Your task to perform on an android device: Open the downloads Image 0: 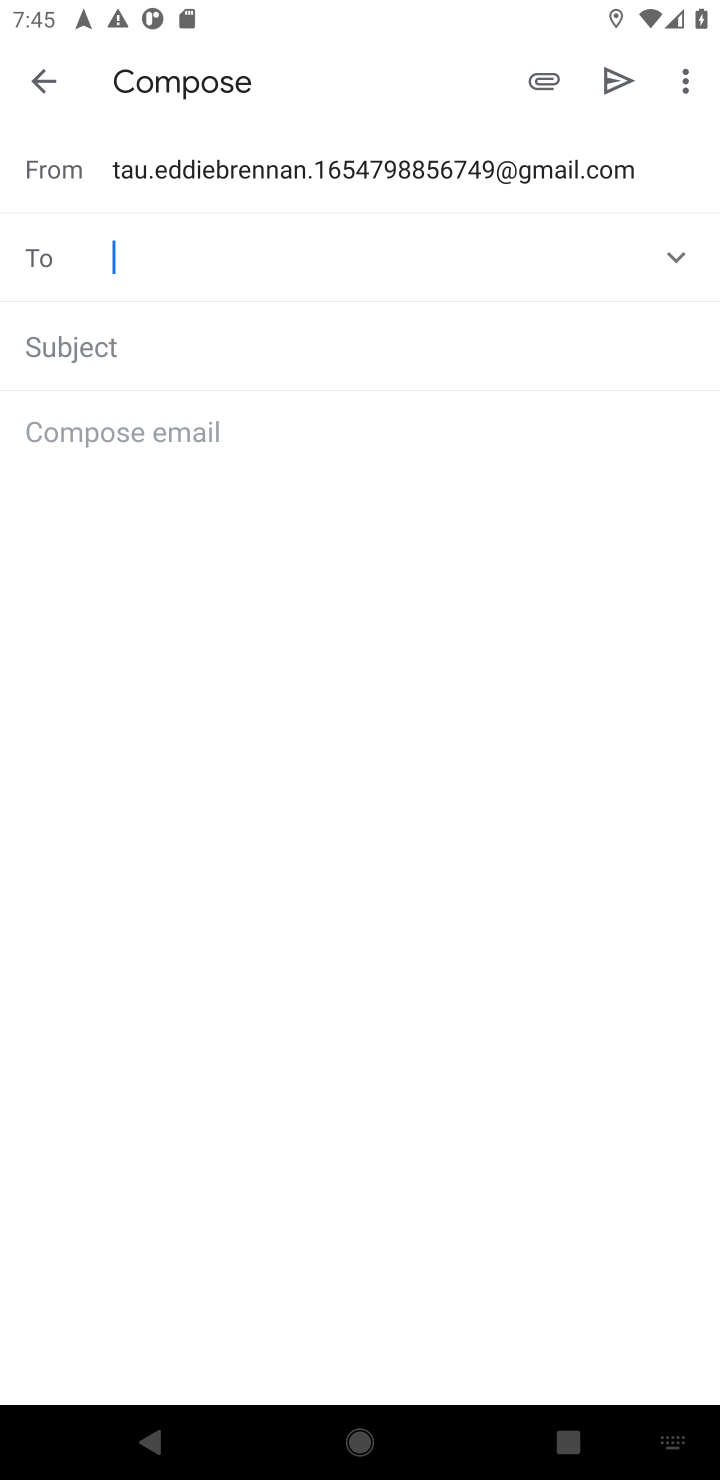
Step 0: press home button
Your task to perform on an android device: Open the downloads Image 1: 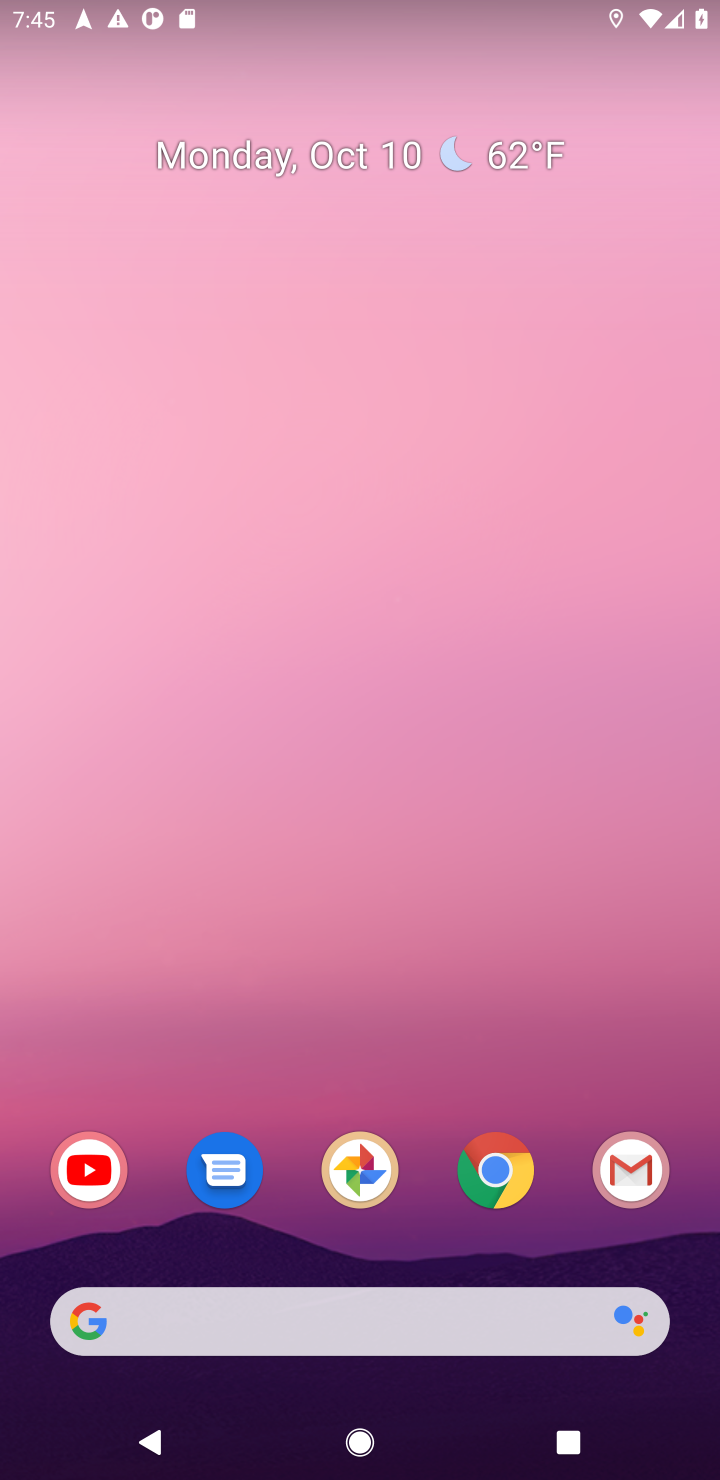
Step 1: click (637, 943)
Your task to perform on an android device: Open the downloads Image 2: 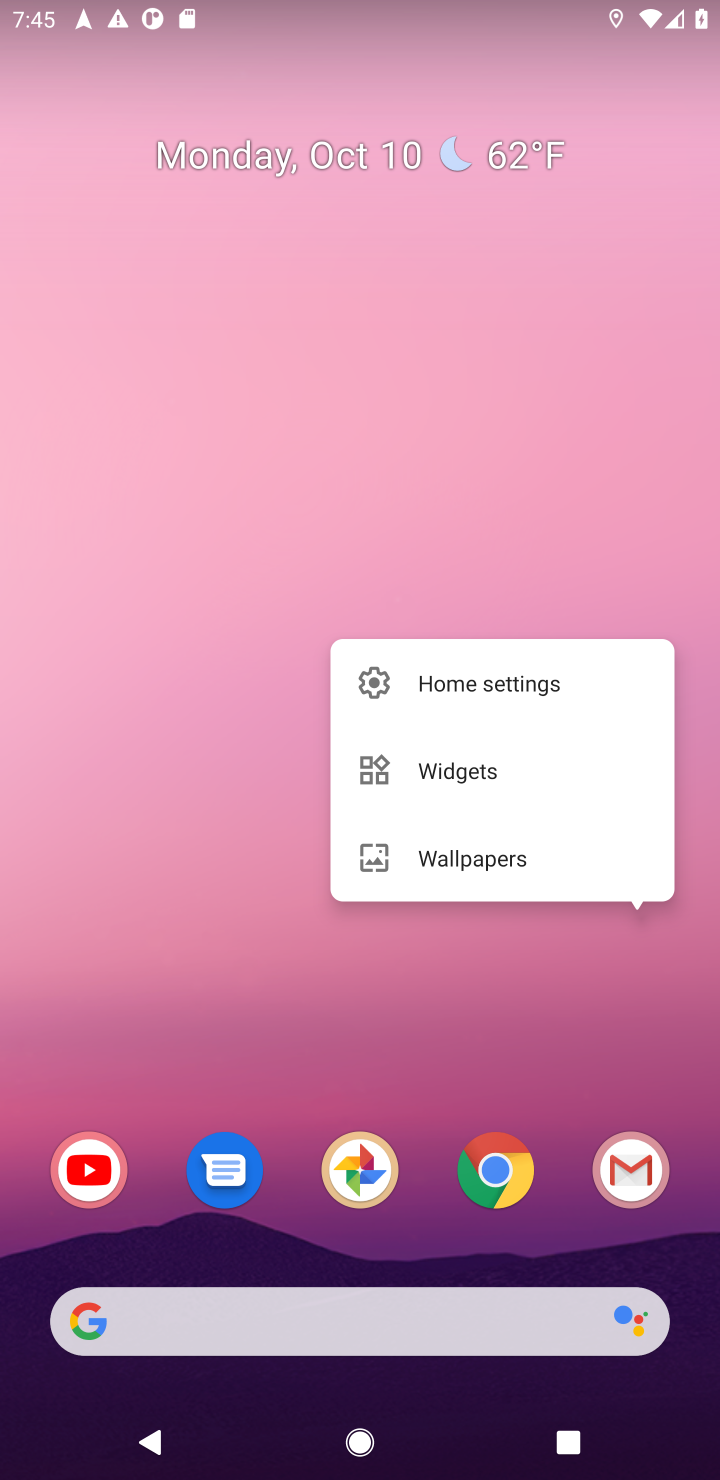
Step 2: drag from (444, 1034) to (285, 249)
Your task to perform on an android device: Open the downloads Image 3: 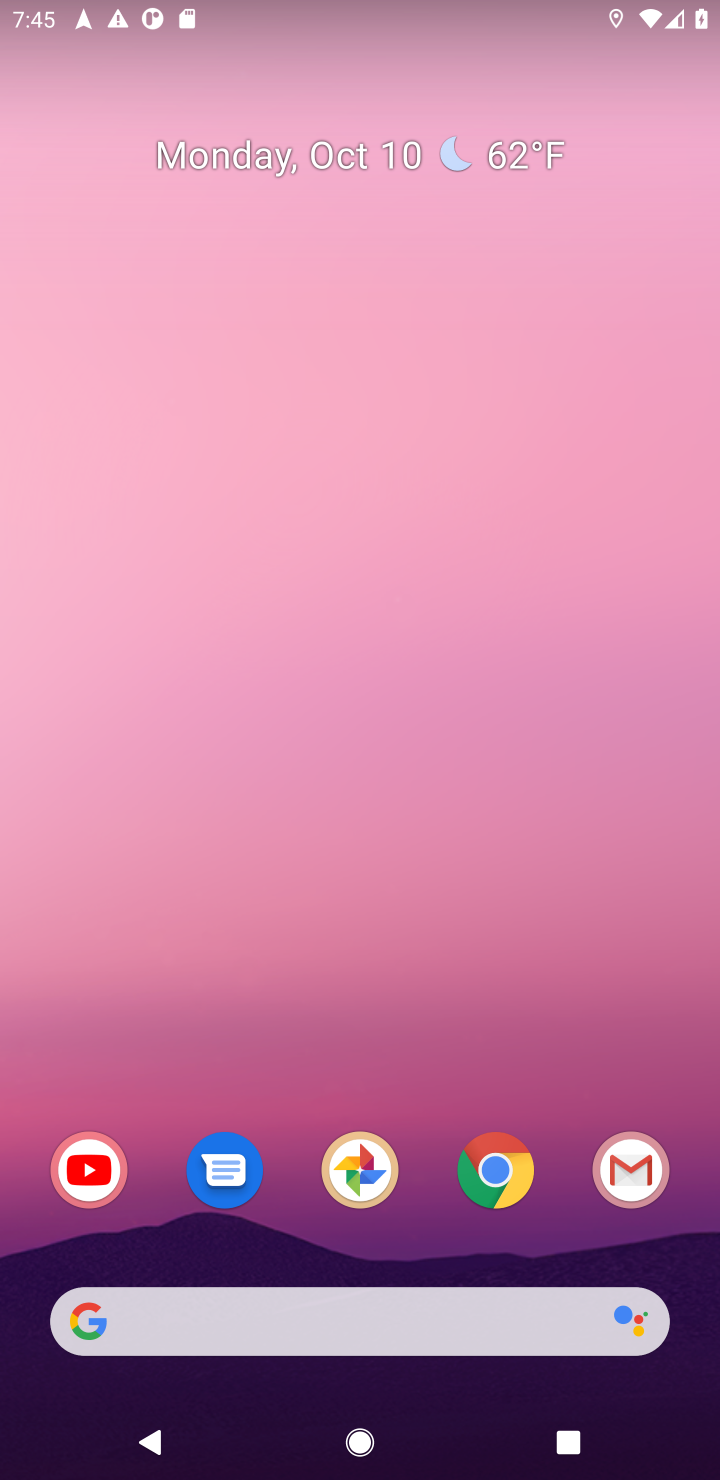
Step 3: drag from (354, 347) to (224, 17)
Your task to perform on an android device: Open the downloads Image 4: 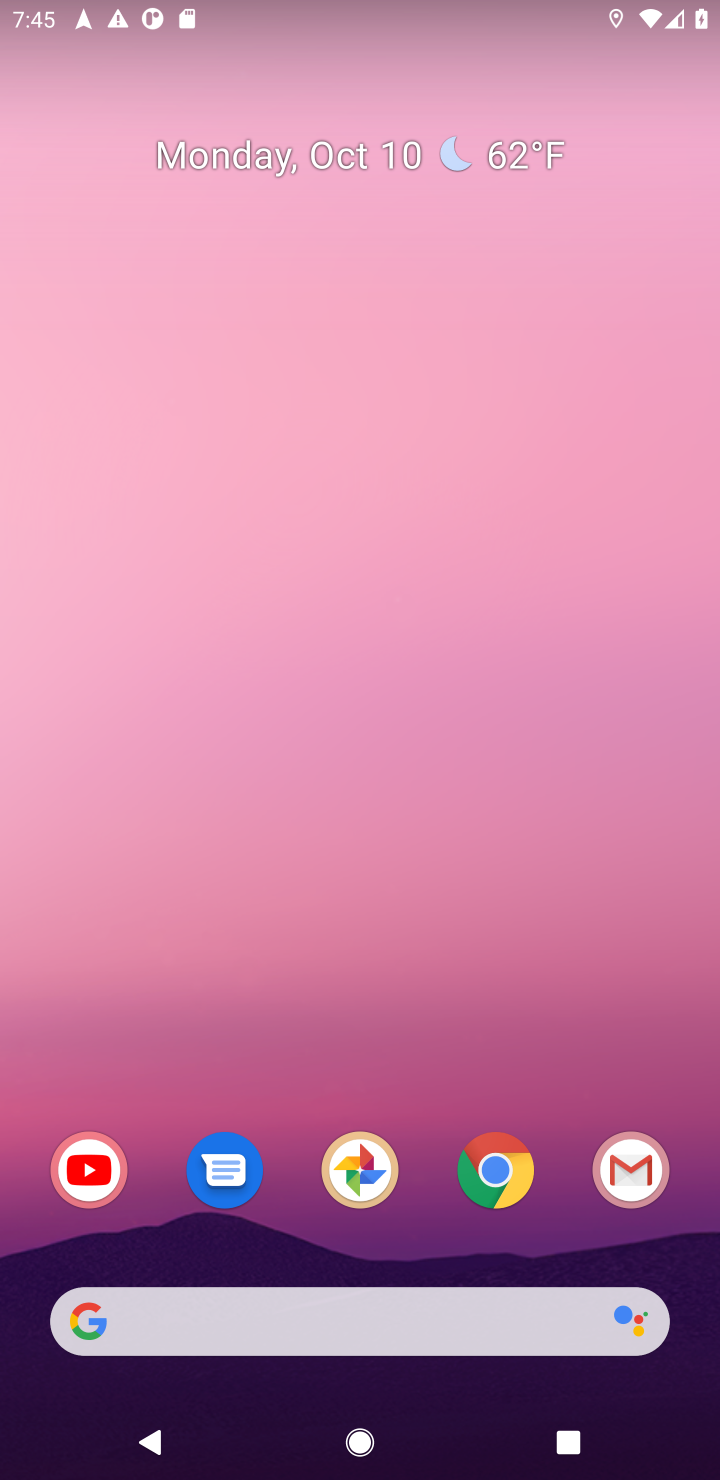
Step 4: drag from (593, 1102) to (508, 234)
Your task to perform on an android device: Open the downloads Image 5: 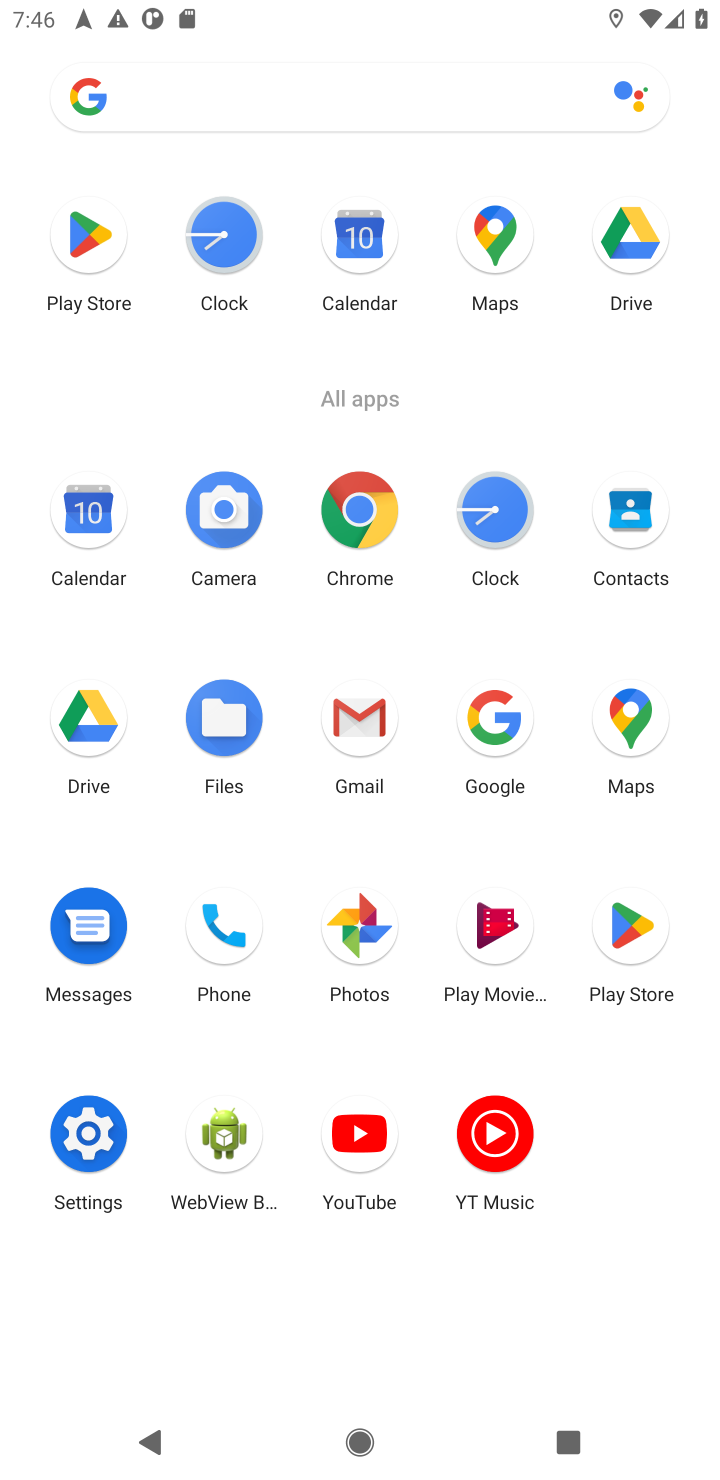
Step 5: click (219, 720)
Your task to perform on an android device: Open the downloads Image 6: 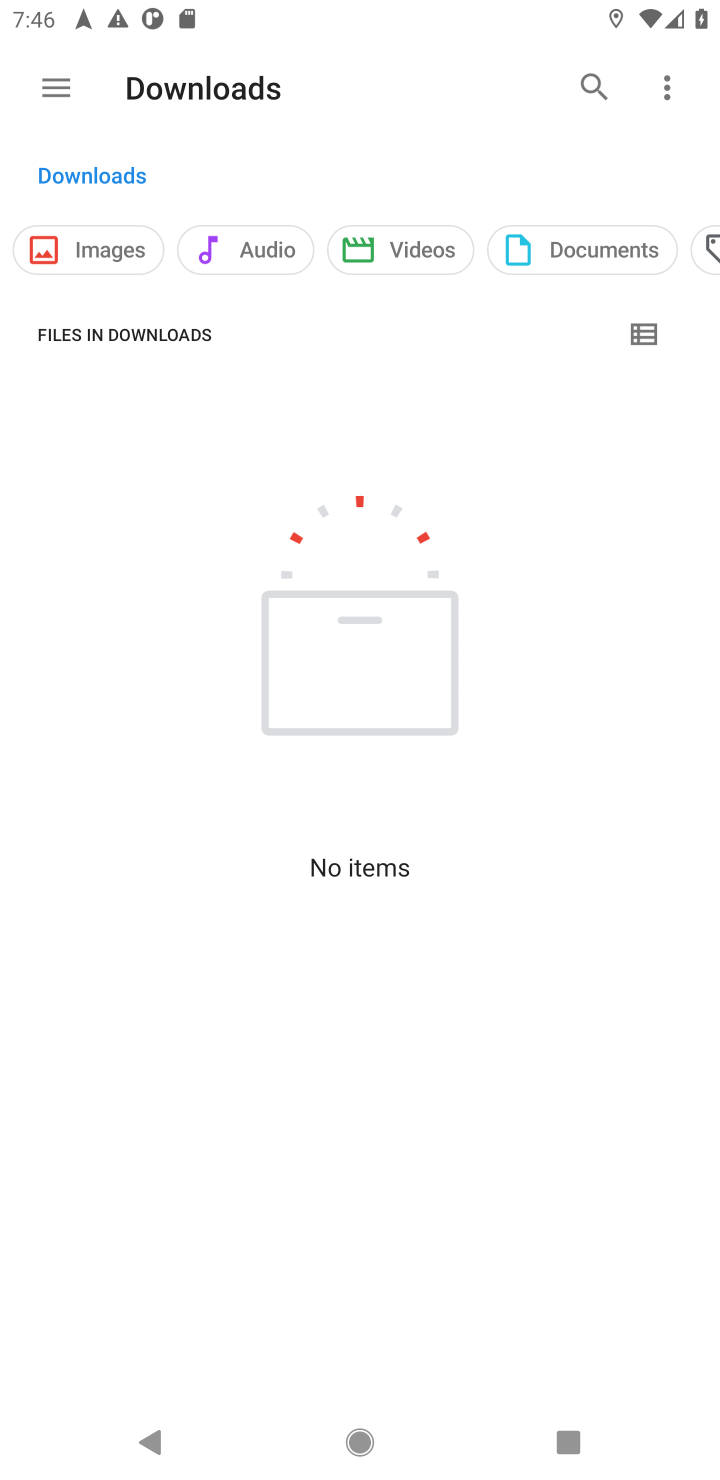
Step 6: task complete